Your task to perform on an android device: turn on showing notifications on the lock screen Image 0: 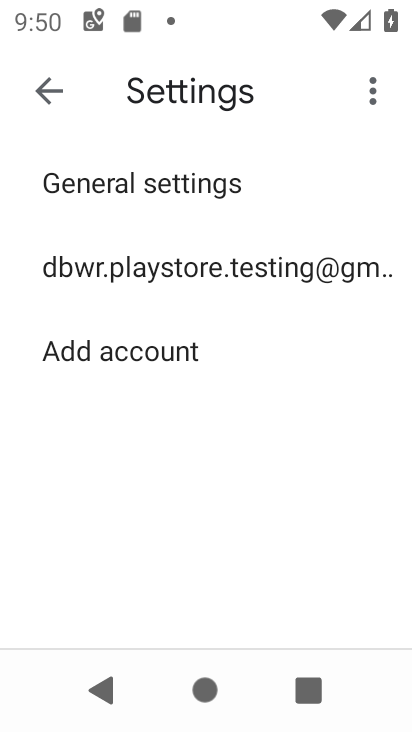
Step 0: press home button
Your task to perform on an android device: turn on showing notifications on the lock screen Image 1: 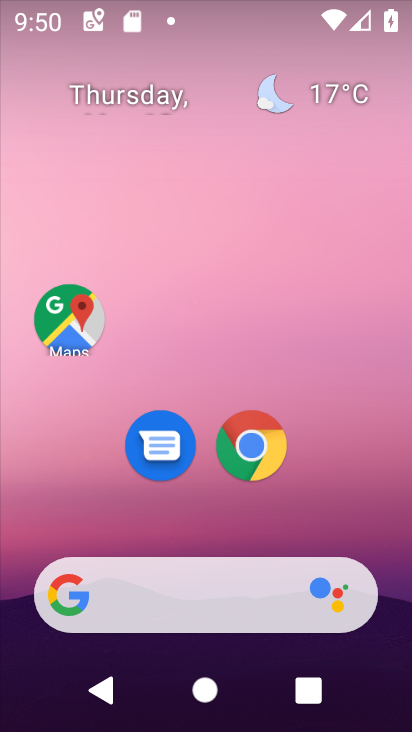
Step 1: drag from (187, 524) to (197, 186)
Your task to perform on an android device: turn on showing notifications on the lock screen Image 2: 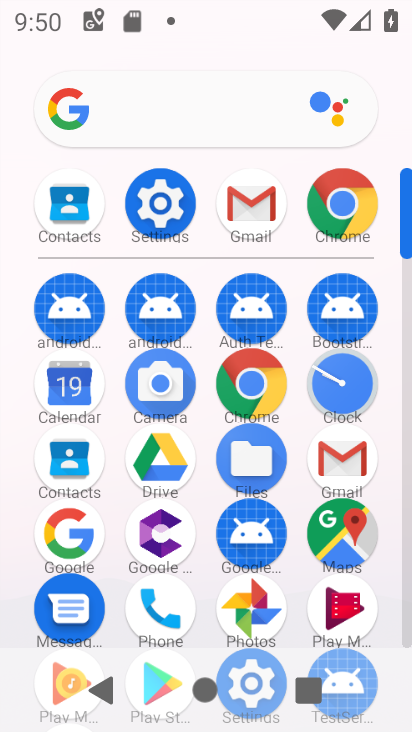
Step 2: click (161, 217)
Your task to perform on an android device: turn on showing notifications on the lock screen Image 3: 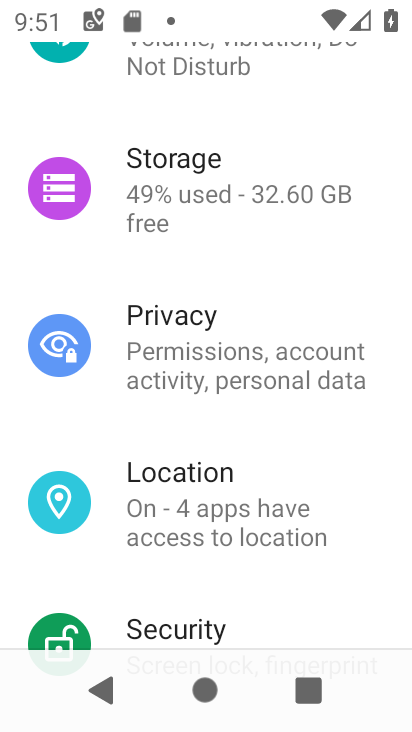
Step 3: drag from (226, 544) to (256, 240)
Your task to perform on an android device: turn on showing notifications on the lock screen Image 4: 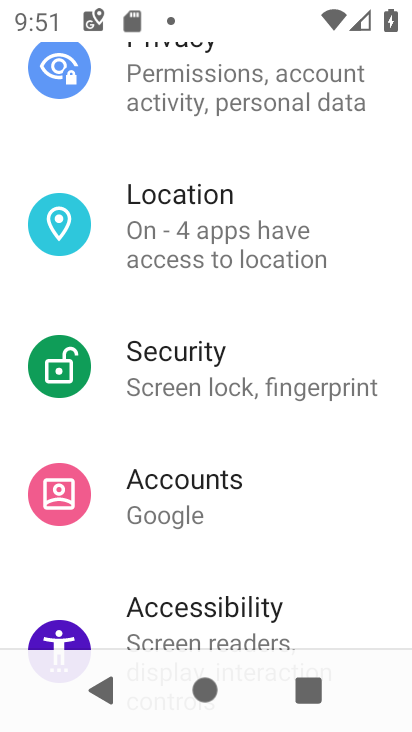
Step 4: drag from (225, 205) to (245, 540)
Your task to perform on an android device: turn on showing notifications on the lock screen Image 5: 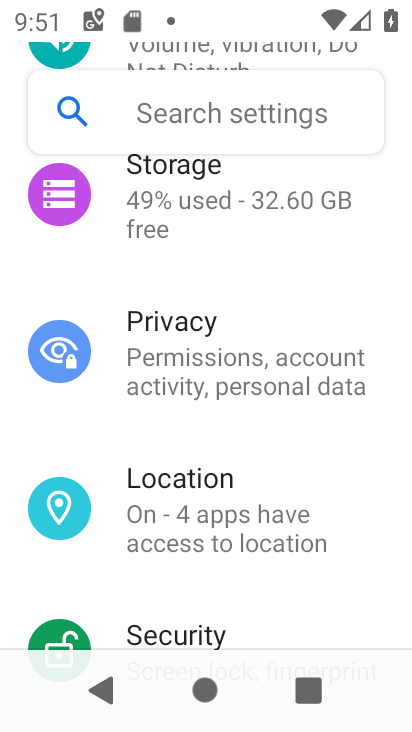
Step 5: drag from (215, 311) to (237, 612)
Your task to perform on an android device: turn on showing notifications on the lock screen Image 6: 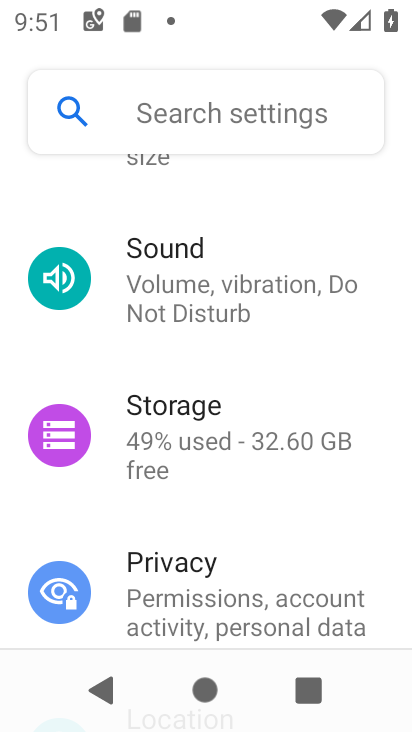
Step 6: drag from (210, 323) to (252, 598)
Your task to perform on an android device: turn on showing notifications on the lock screen Image 7: 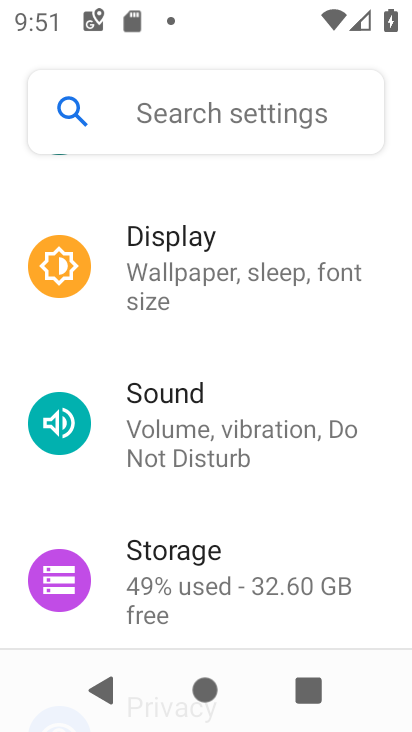
Step 7: drag from (214, 333) to (238, 626)
Your task to perform on an android device: turn on showing notifications on the lock screen Image 8: 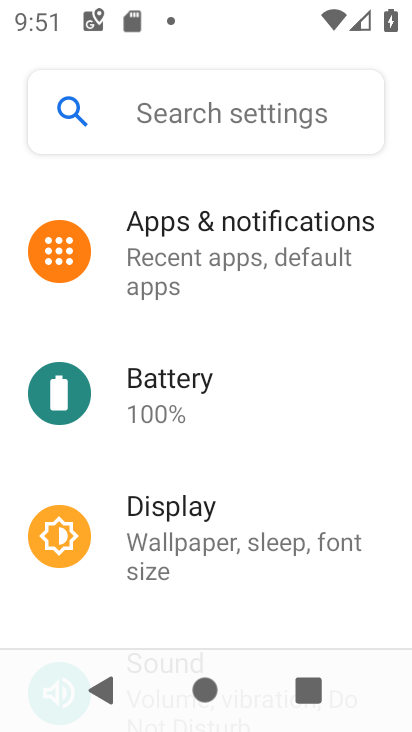
Step 8: click (199, 253)
Your task to perform on an android device: turn on showing notifications on the lock screen Image 9: 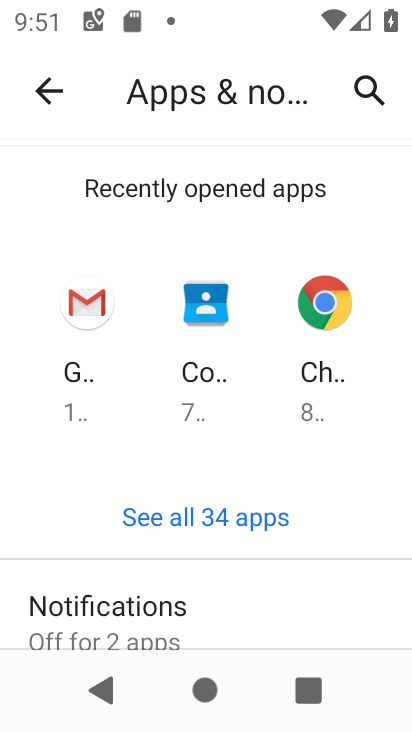
Step 9: drag from (232, 634) to (237, 324)
Your task to perform on an android device: turn on showing notifications on the lock screen Image 10: 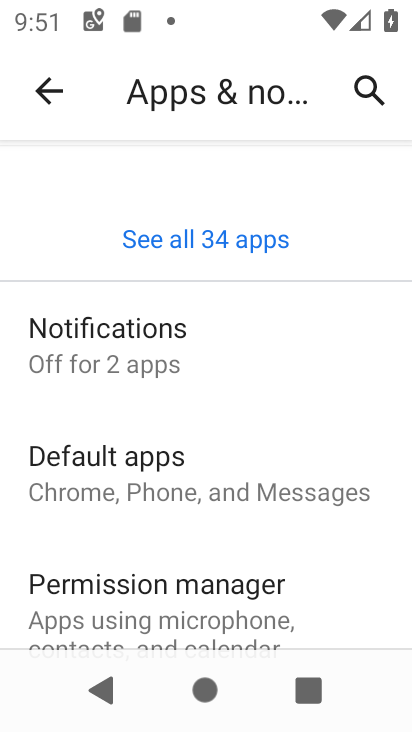
Step 10: click (195, 377)
Your task to perform on an android device: turn on showing notifications on the lock screen Image 11: 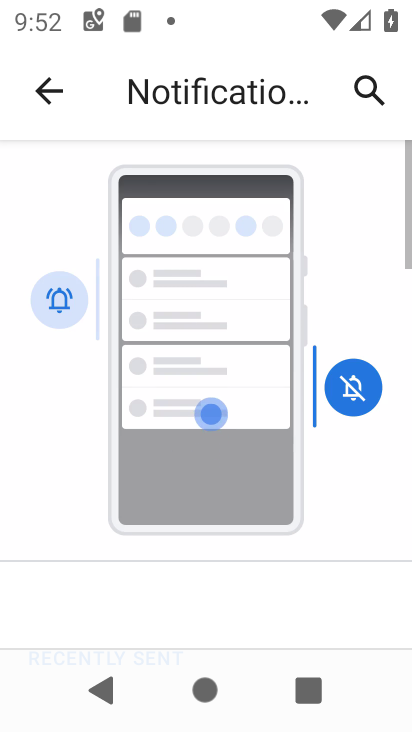
Step 11: drag from (201, 486) to (230, 61)
Your task to perform on an android device: turn on showing notifications on the lock screen Image 12: 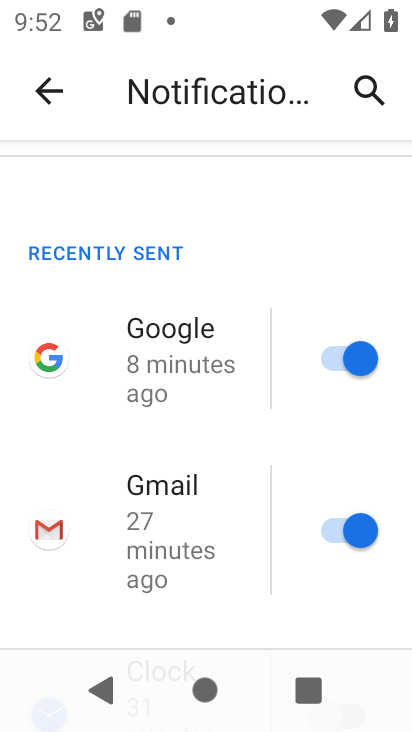
Step 12: drag from (238, 514) to (242, 115)
Your task to perform on an android device: turn on showing notifications on the lock screen Image 13: 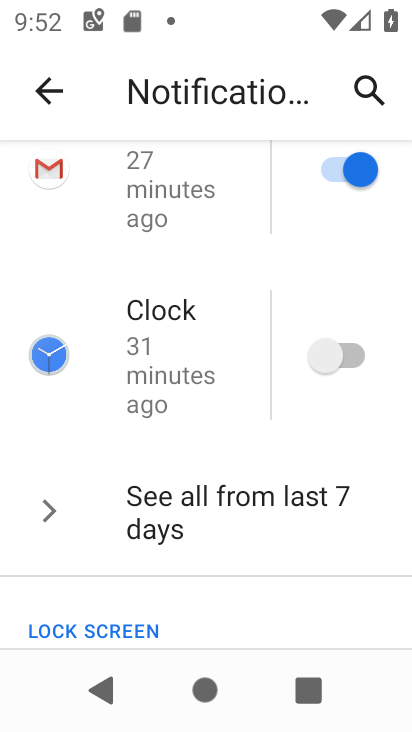
Step 13: drag from (239, 475) to (234, 151)
Your task to perform on an android device: turn on showing notifications on the lock screen Image 14: 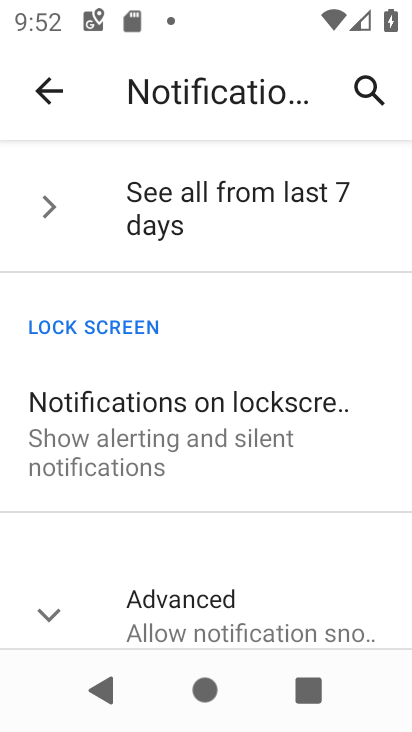
Step 14: click (218, 410)
Your task to perform on an android device: turn on showing notifications on the lock screen Image 15: 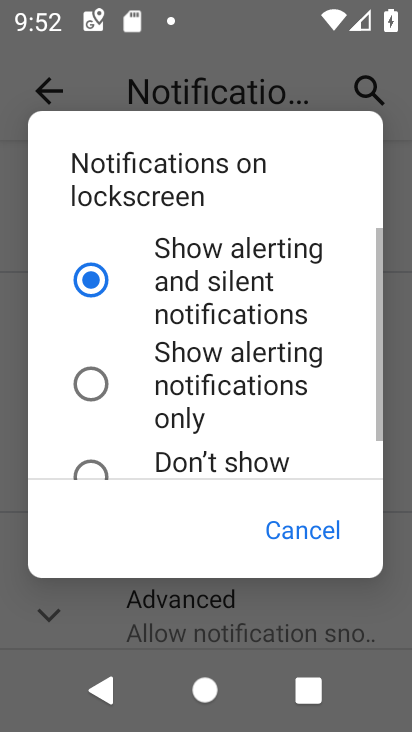
Step 15: click (160, 291)
Your task to perform on an android device: turn on showing notifications on the lock screen Image 16: 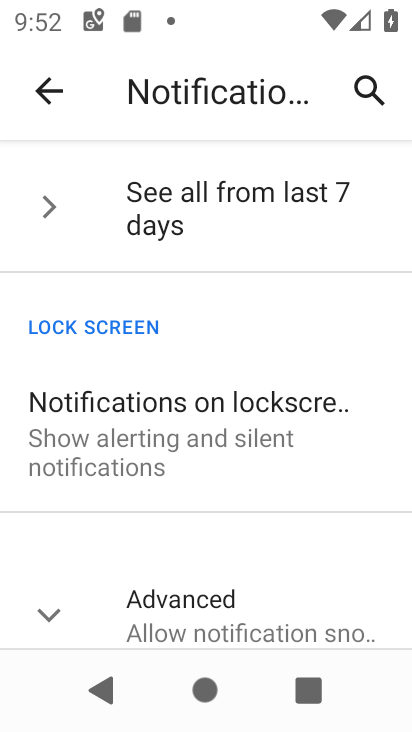
Step 16: task complete